Your task to perform on an android device: snooze an email in the gmail app Image 0: 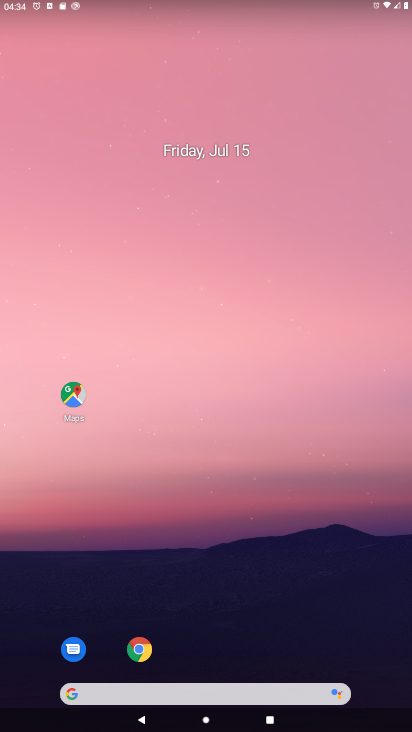
Step 0: drag from (380, 675) to (304, 196)
Your task to perform on an android device: snooze an email in the gmail app Image 1: 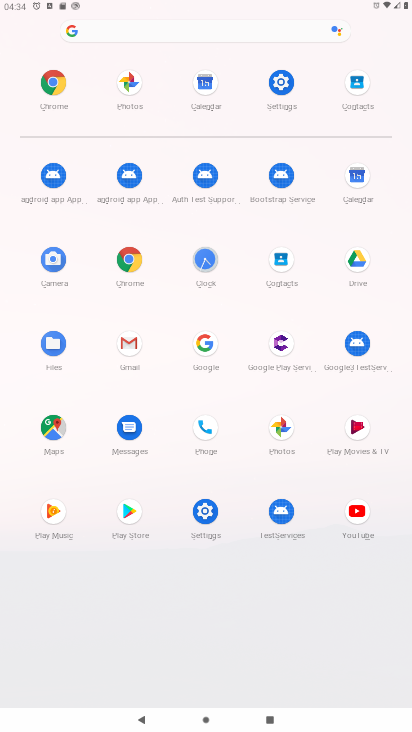
Step 1: click (129, 347)
Your task to perform on an android device: snooze an email in the gmail app Image 2: 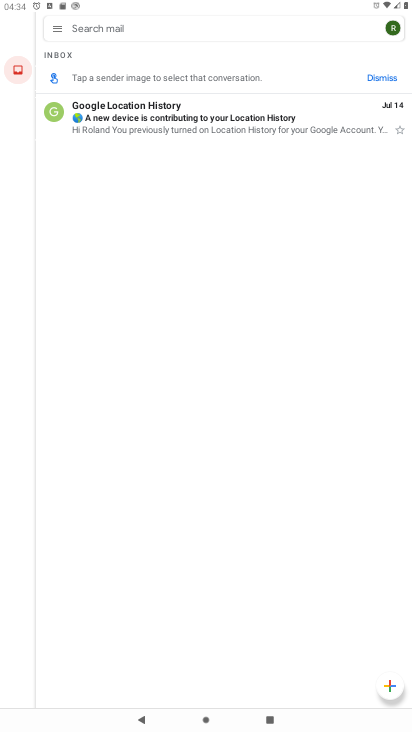
Step 2: click (56, 28)
Your task to perform on an android device: snooze an email in the gmail app Image 3: 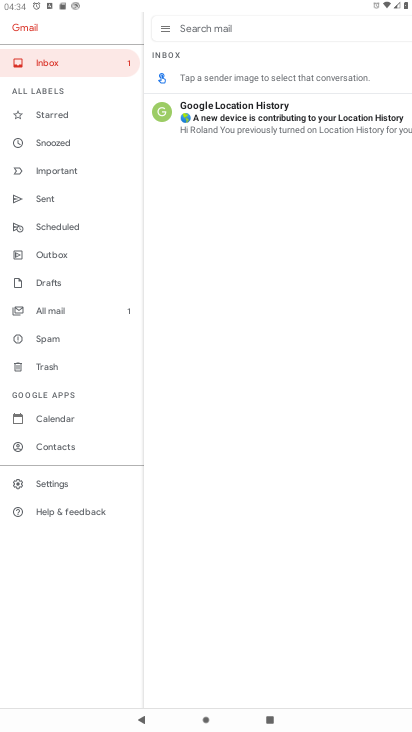
Step 3: click (57, 305)
Your task to perform on an android device: snooze an email in the gmail app Image 4: 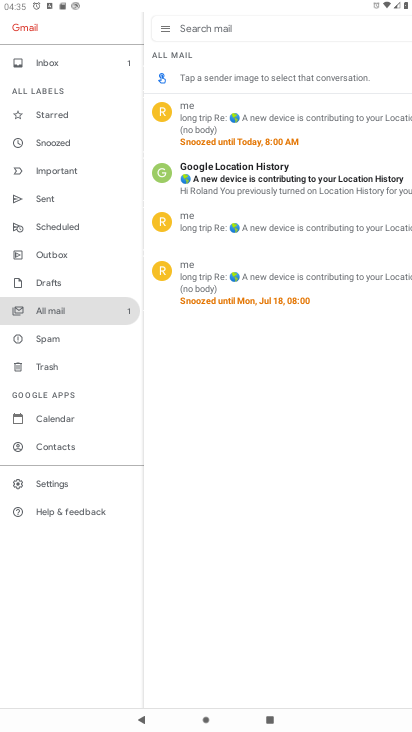
Step 4: click (239, 173)
Your task to perform on an android device: snooze an email in the gmail app Image 5: 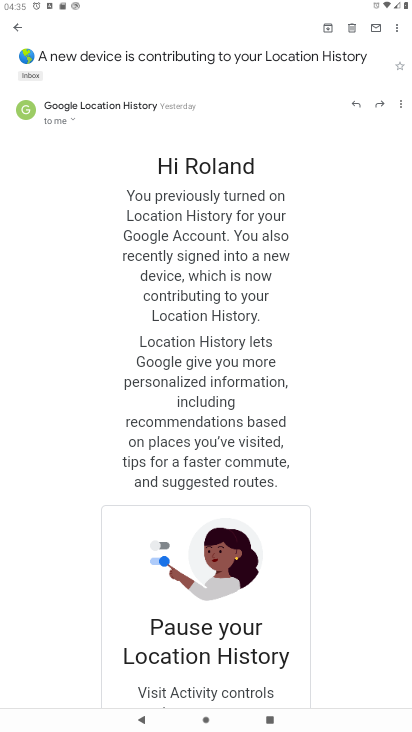
Step 5: click (396, 30)
Your task to perform on an android device: snooze an email in the gmail app Image 6: 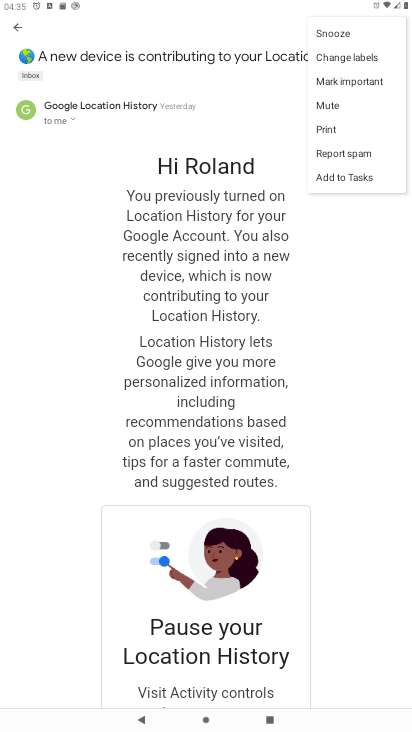
Step 6: click (332, 33)
Your task to perform on an android device: snooze an email in the gmail app Image 7: 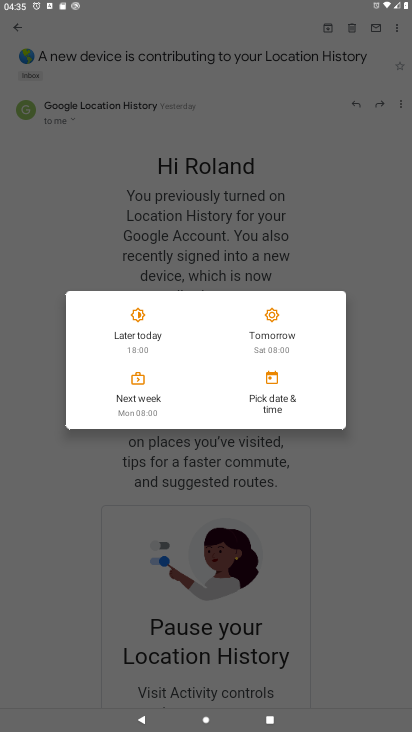
Step 7: click (138, 326)
Your task to perform on an android device: snooze an email in the gmail app Image 8: 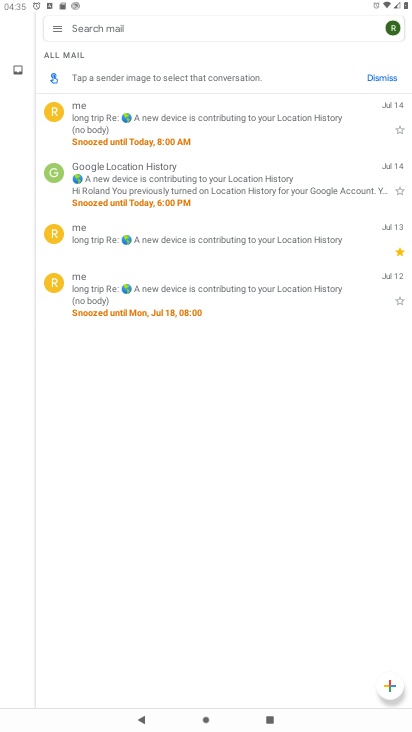
Step 8: task complete